Your task to perform on an android device: Open Yahoo.com Image 0: 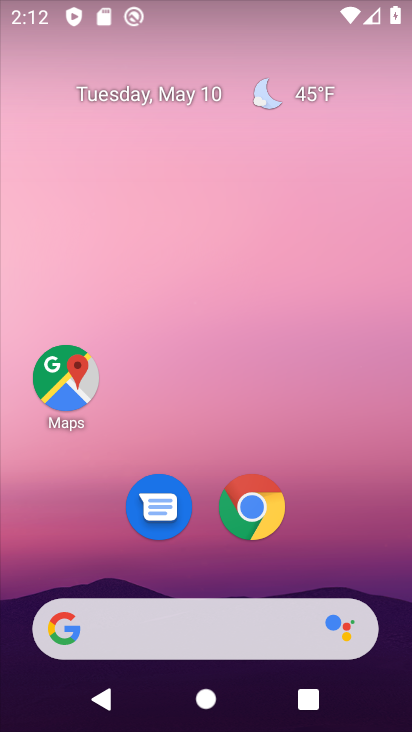
Step 0: click (258, 513)
Your task to perform on an android device: Open Yahoo.com Image 1: 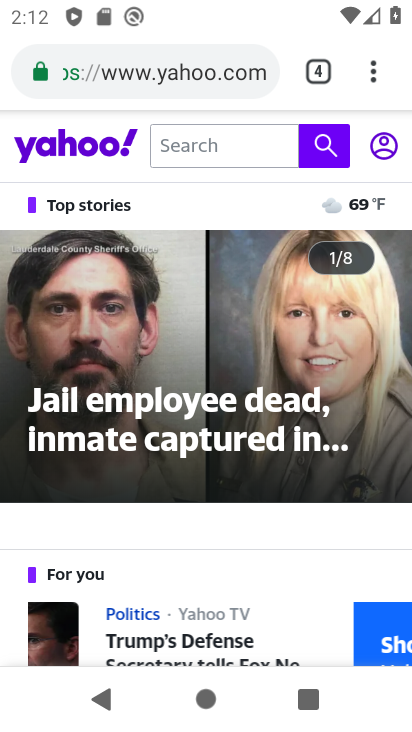
Step 1: drag from (213, 588) to (249, 275)
Your task to perform on an android device: Open Yahoo.com Image 2: 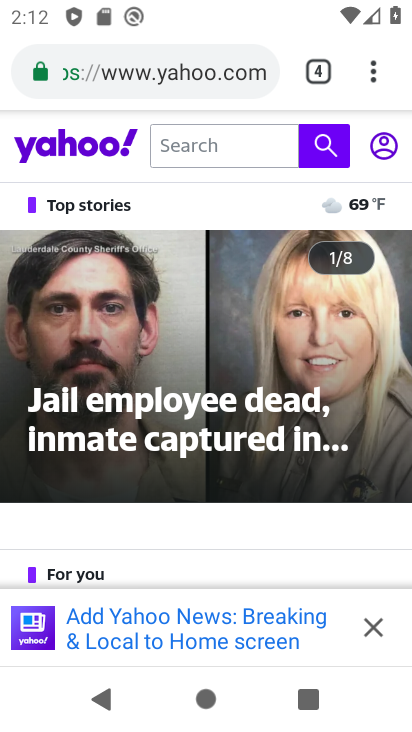
Step 2: click (369, 631)
Your task to perform on an android device: Open Yahoo.com Image 3: 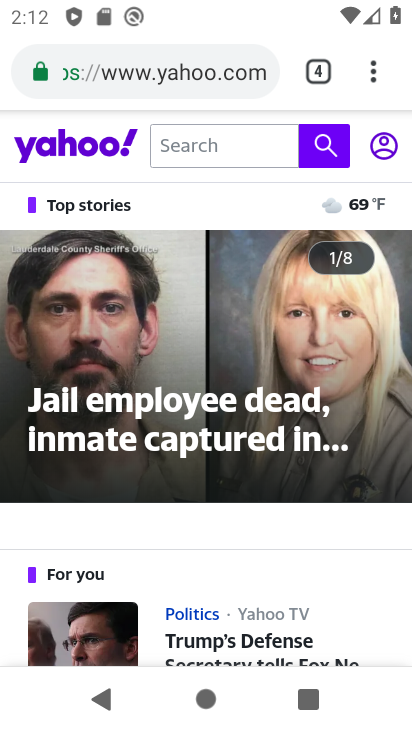
Step 3: task complete